Your task to perform on an android device: toggle location history Image 0: 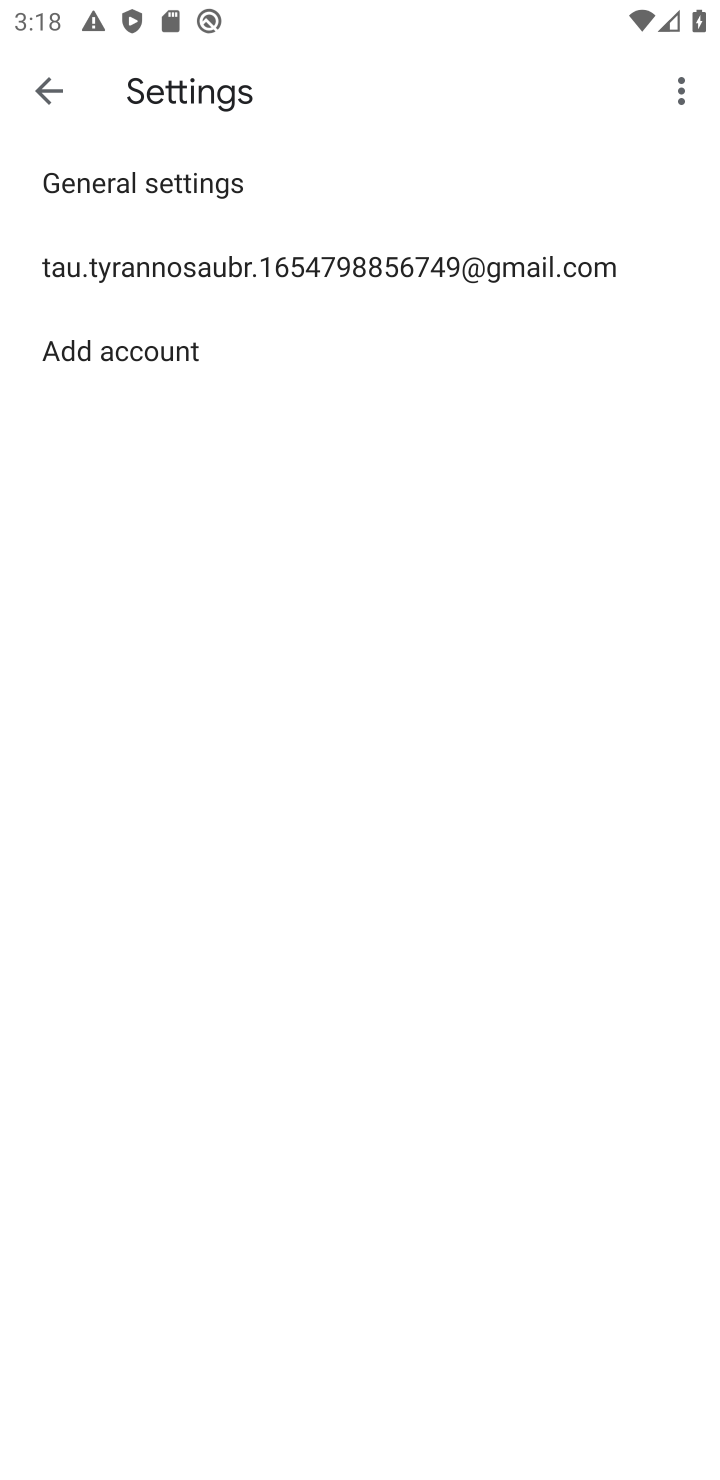
Step 0: press home button
Your task to perform on an android device: toggle location history Image 1: 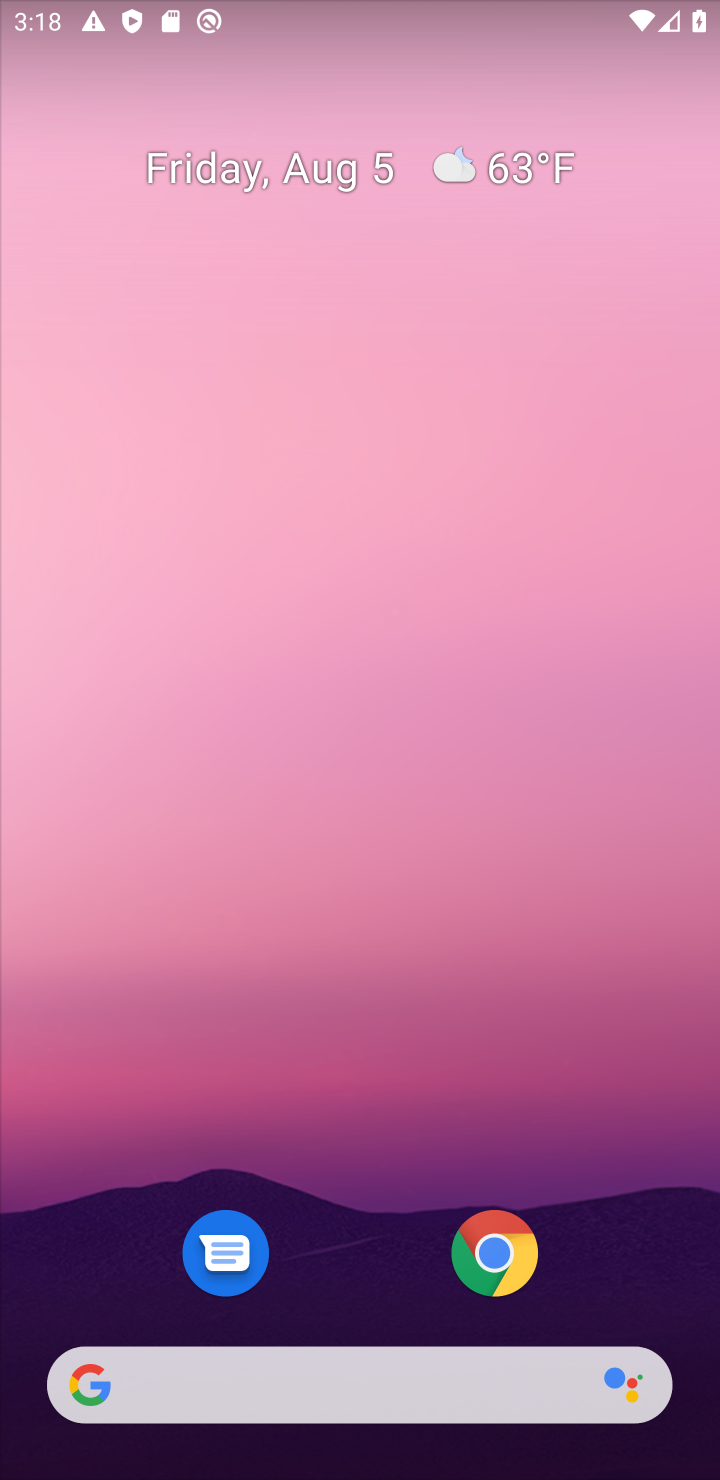
Step 1: drag from (388, 1186) to (548, 258)
Your task to perform on an android device: toggle location history Image 2: 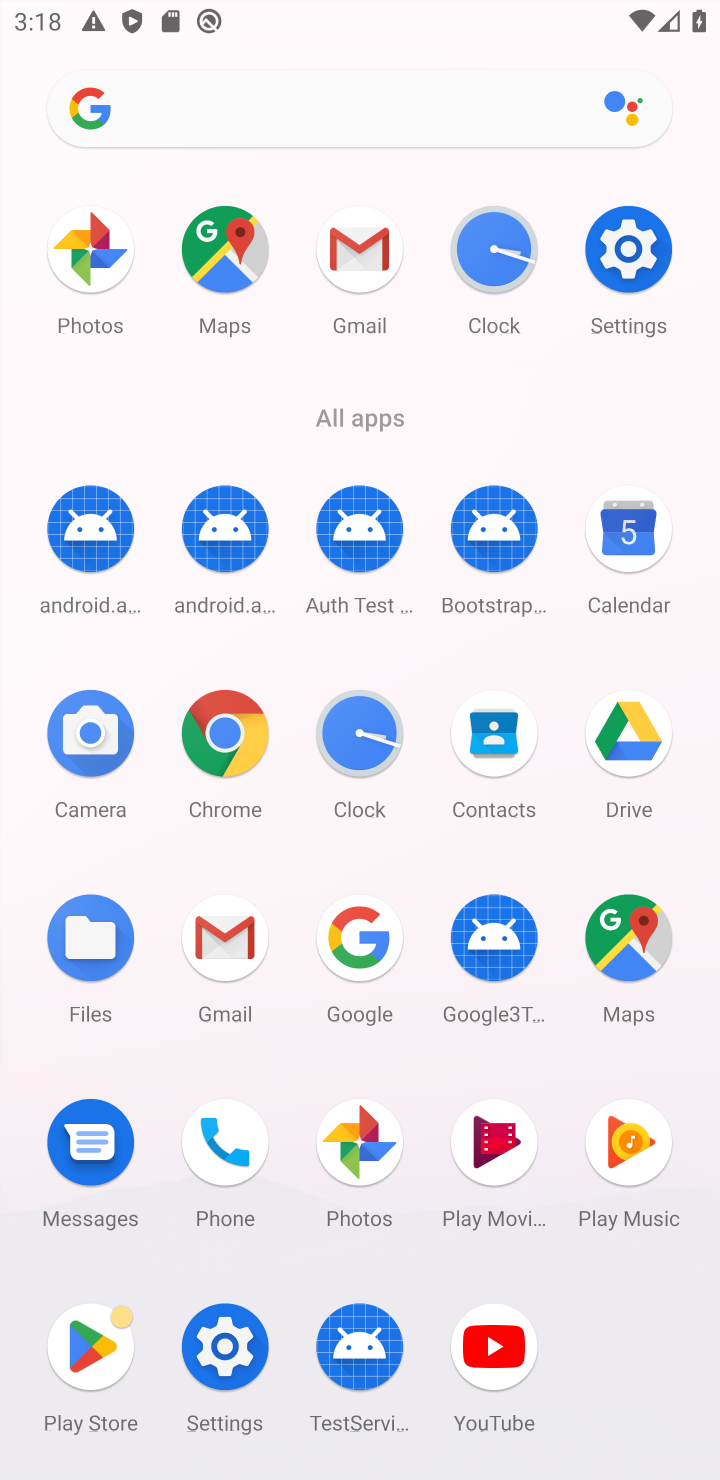
Step 2: click (624, 244)
Your task to perform on an android device: toggle location history Image 3: 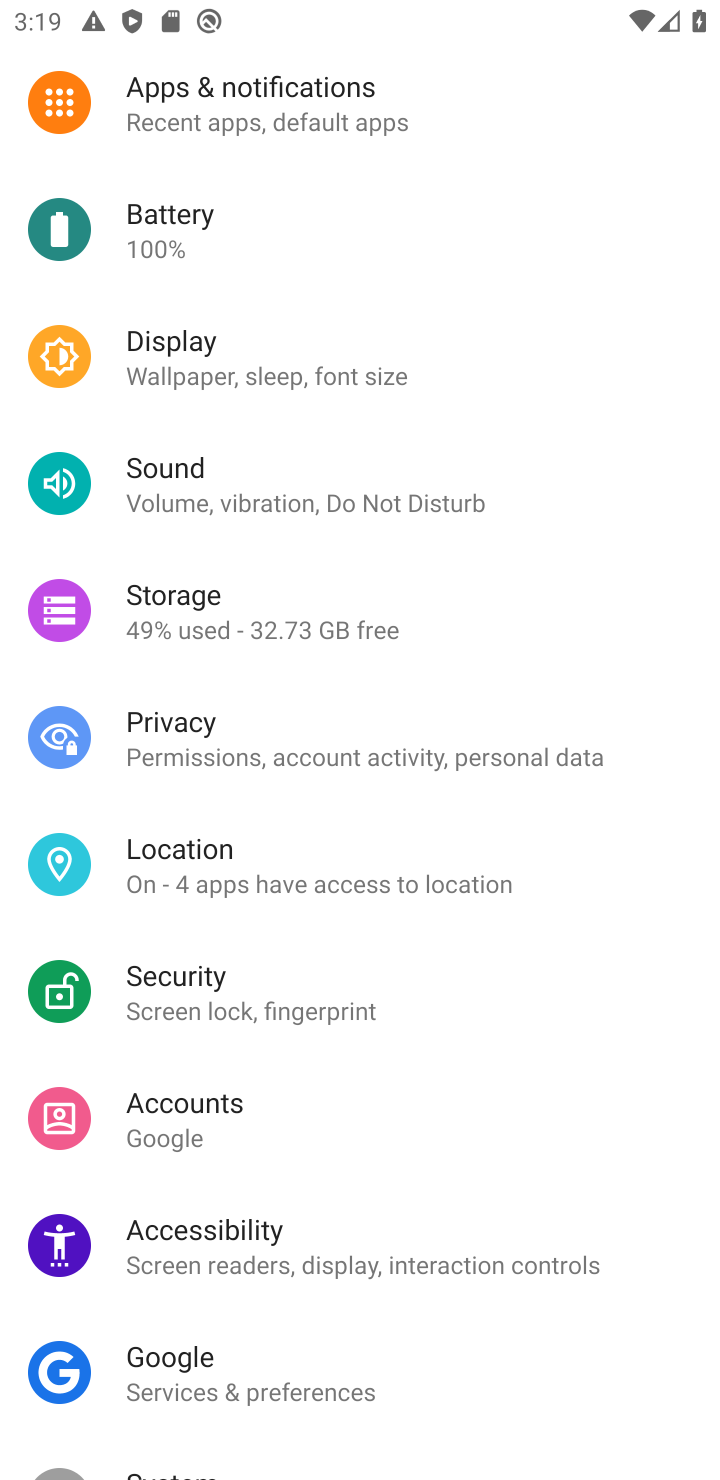
Step 3: click (267, 838)
Your task to perform on an android device: toggle location history Image 4: 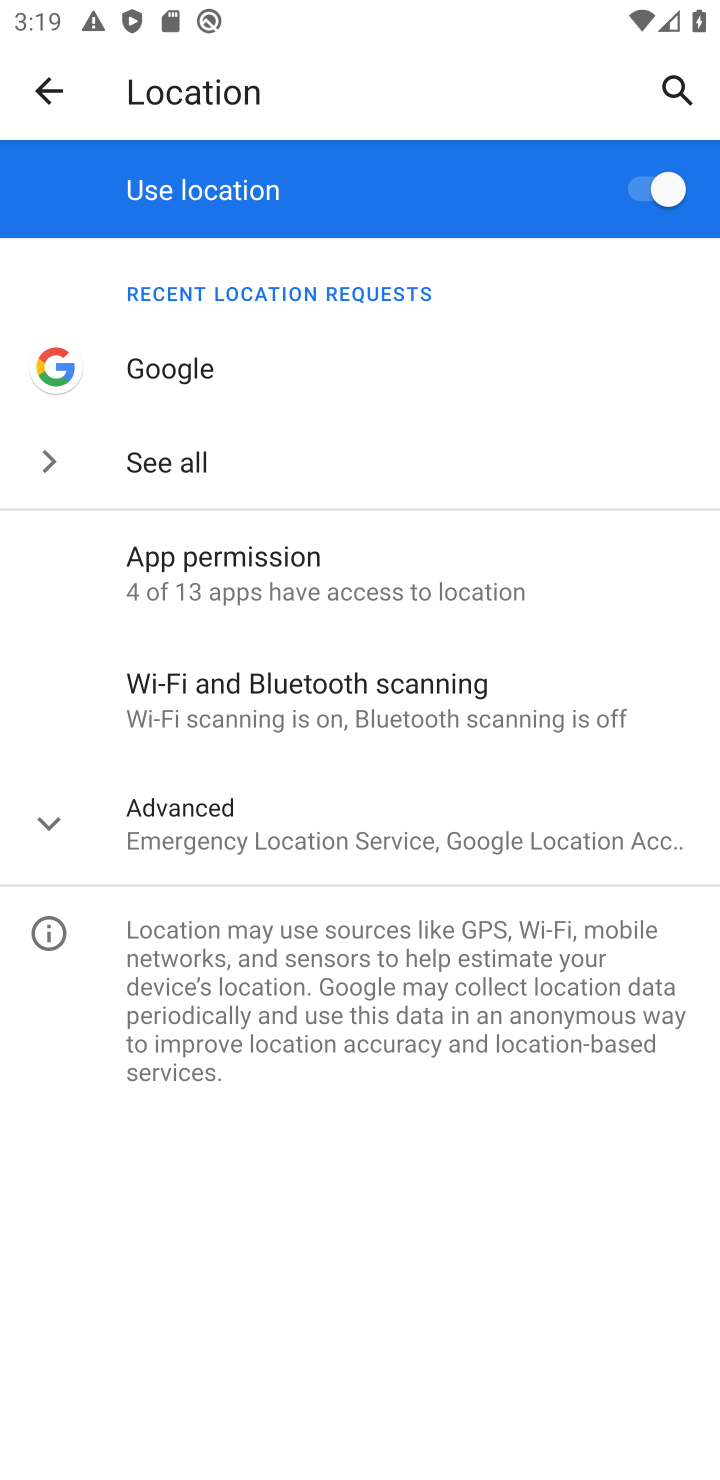
Step 4: click (49, 805)
Your task to perform on an android device: toggle location history Image 5: 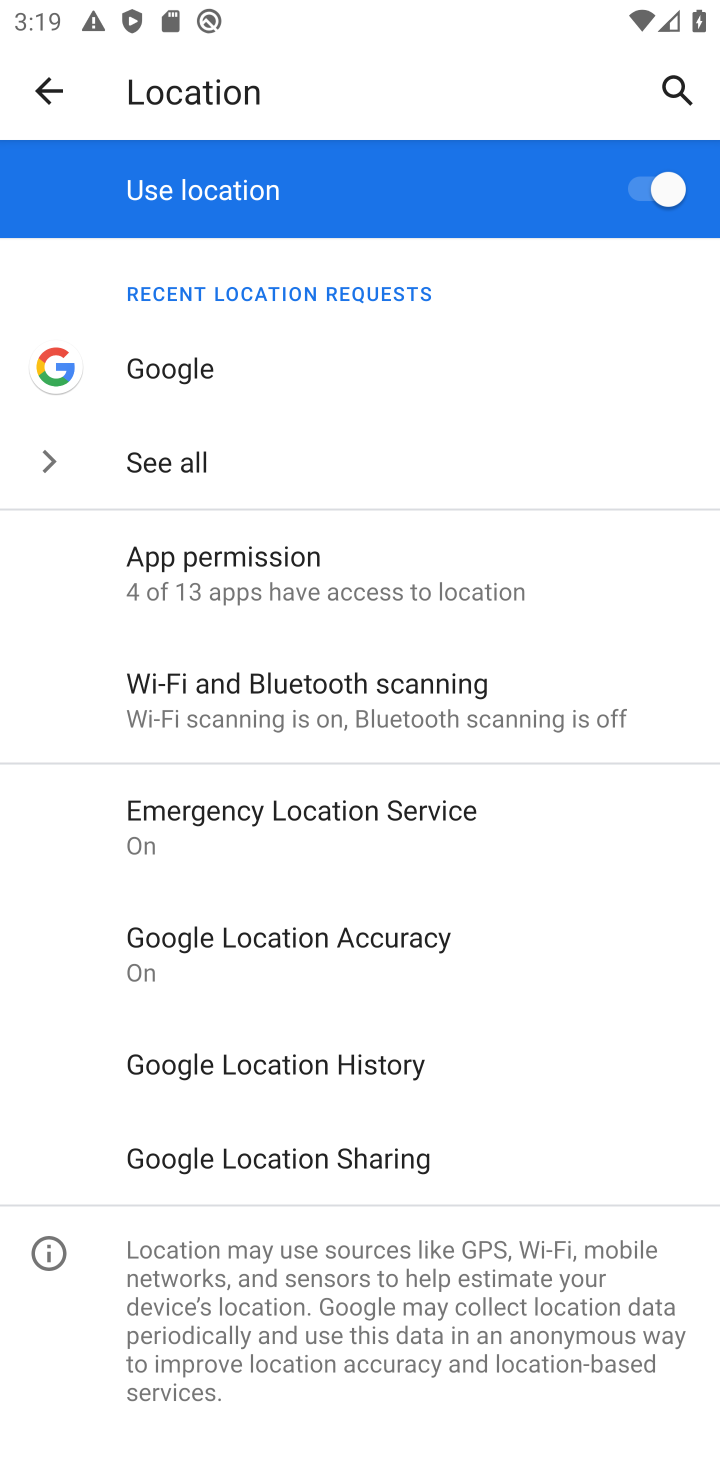
Step 5: click (370, 1044)
Your task to perform on an android device: toggle location history Image 6: 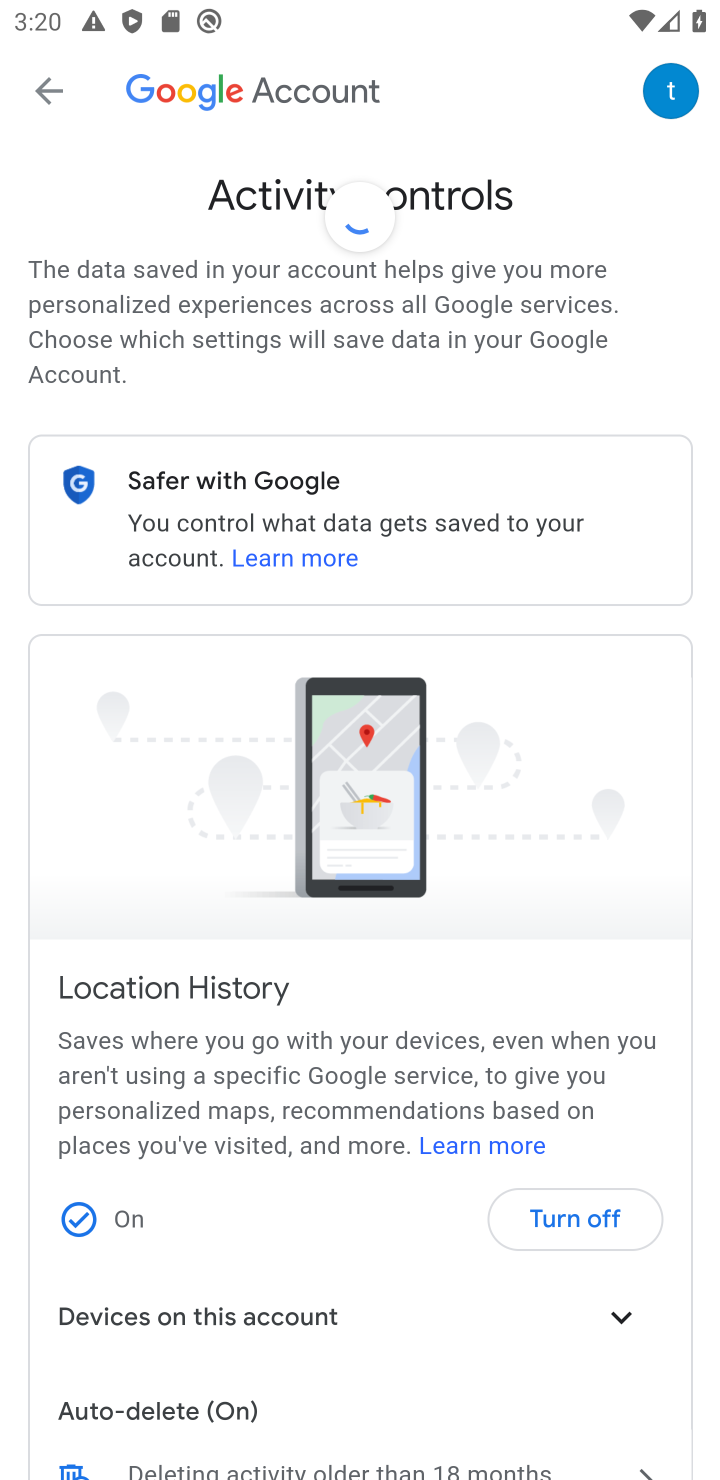
Step 6: drag from (379, 1269) to (366, 727)
Your task to perform on an android device: toggle location history Image 7: 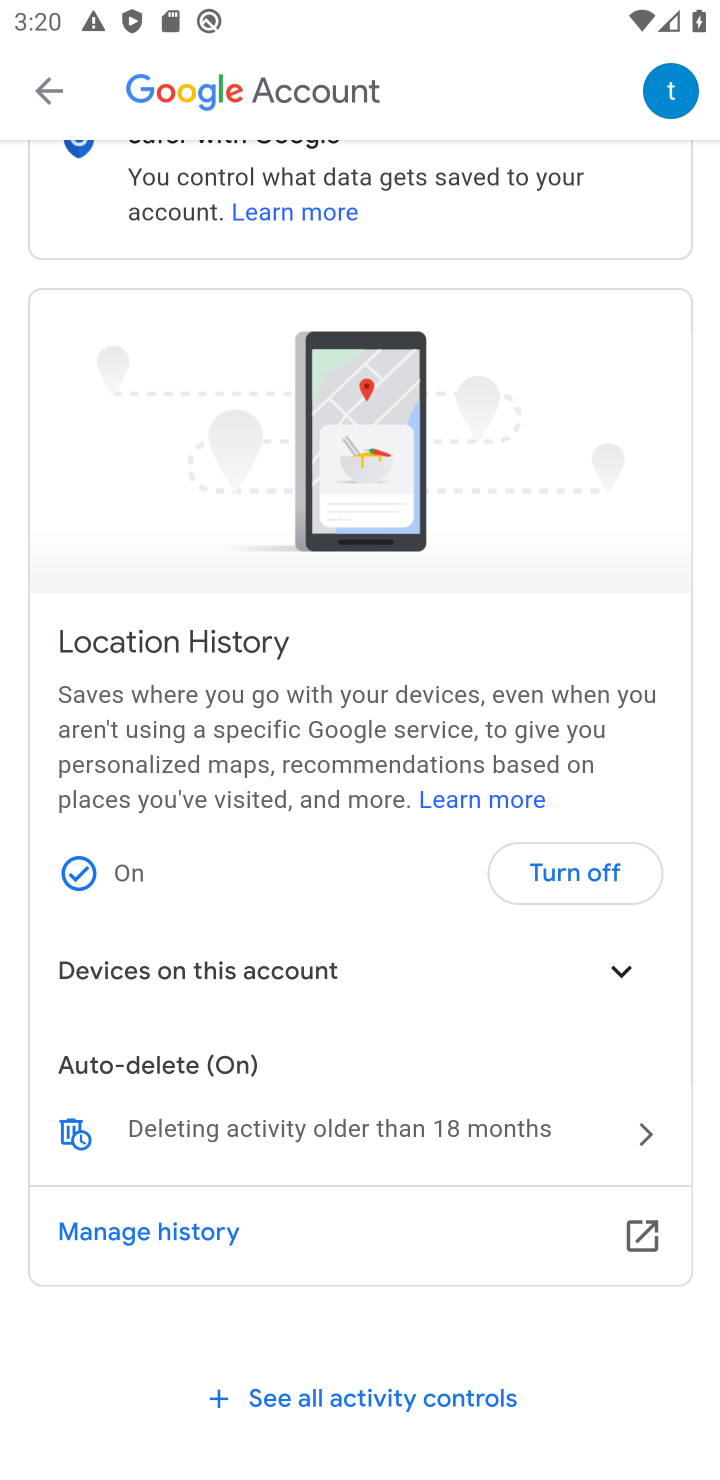
Step 7: click (596, 854)
Your task to perform on an android device: toggle location history Image 8: 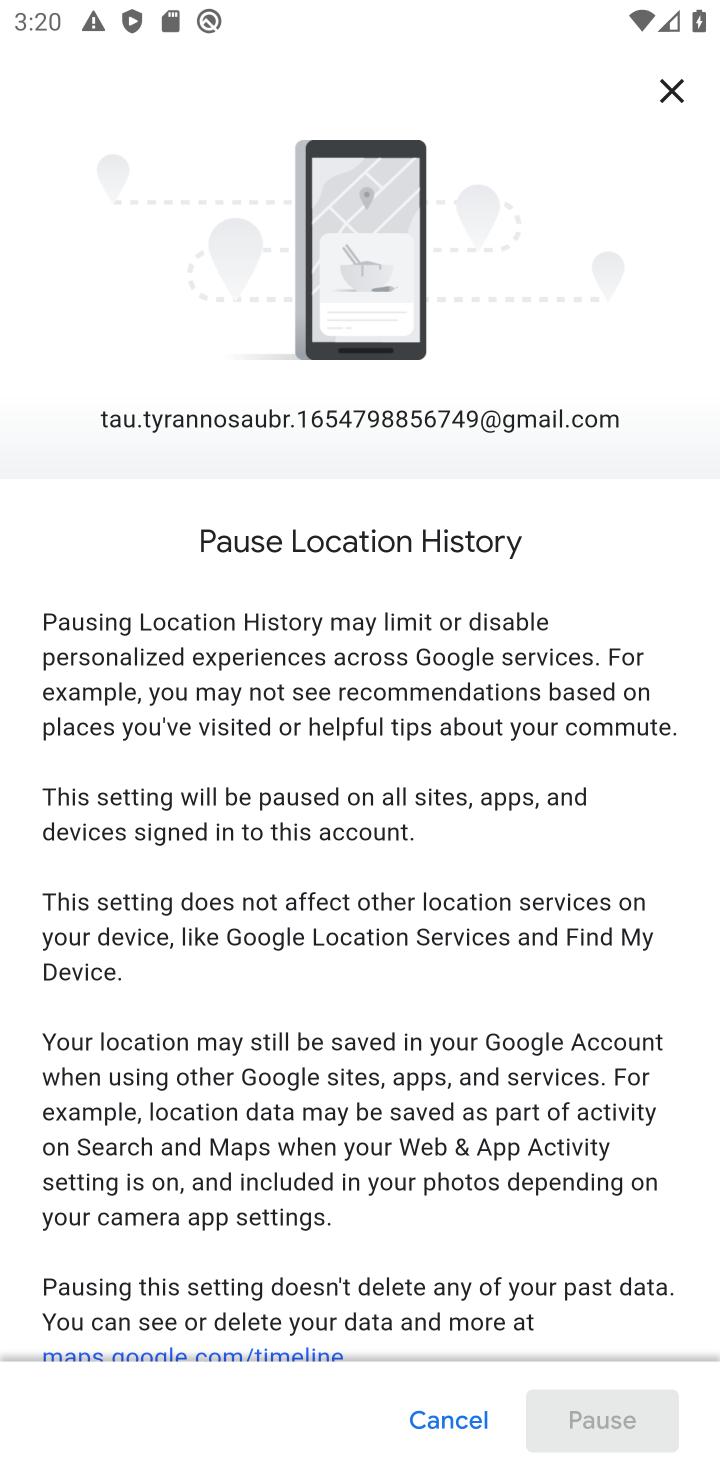
Step 8: drag from (552, 1233) to (554, 433)
Your task to perform on an android device: toggle location history Image 9: 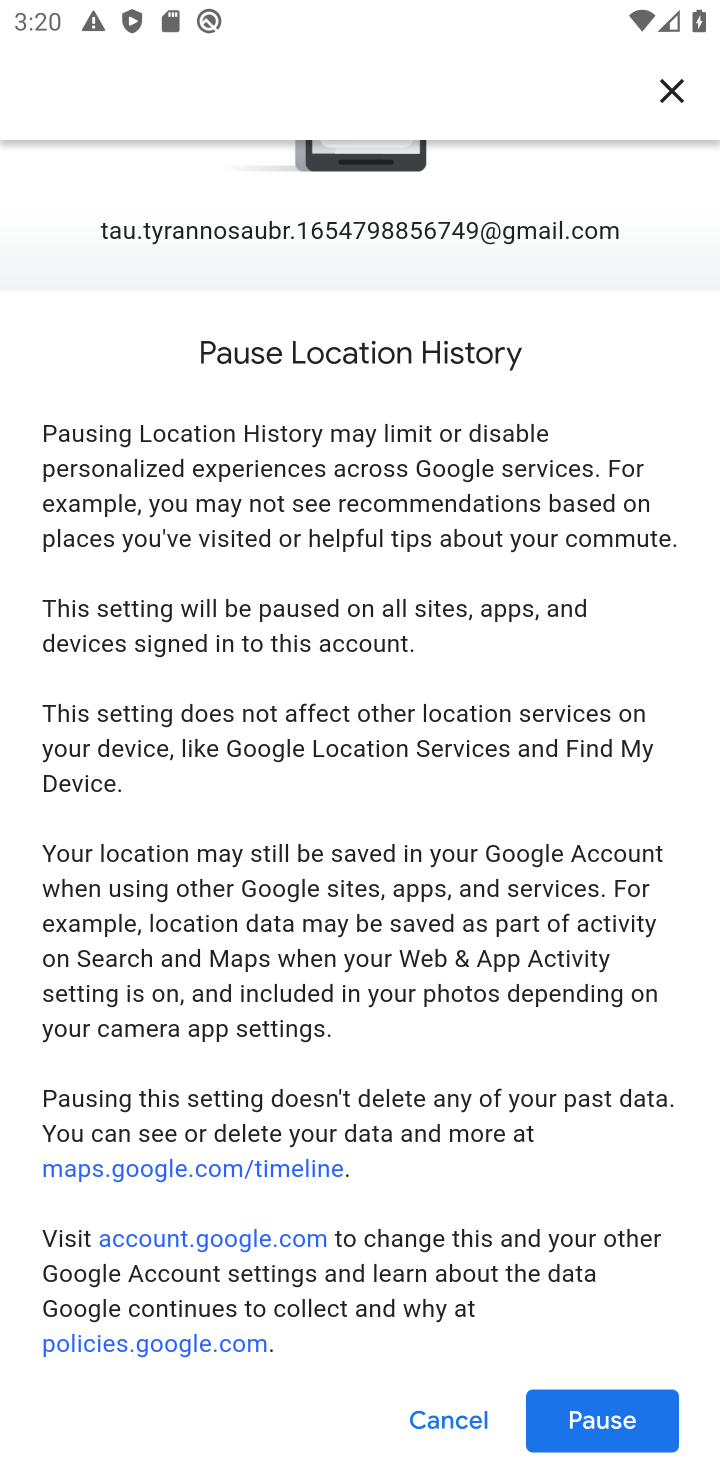
Step 9: click (598, 1421)
Your task to perform on an android device: toggle location history Image 10: 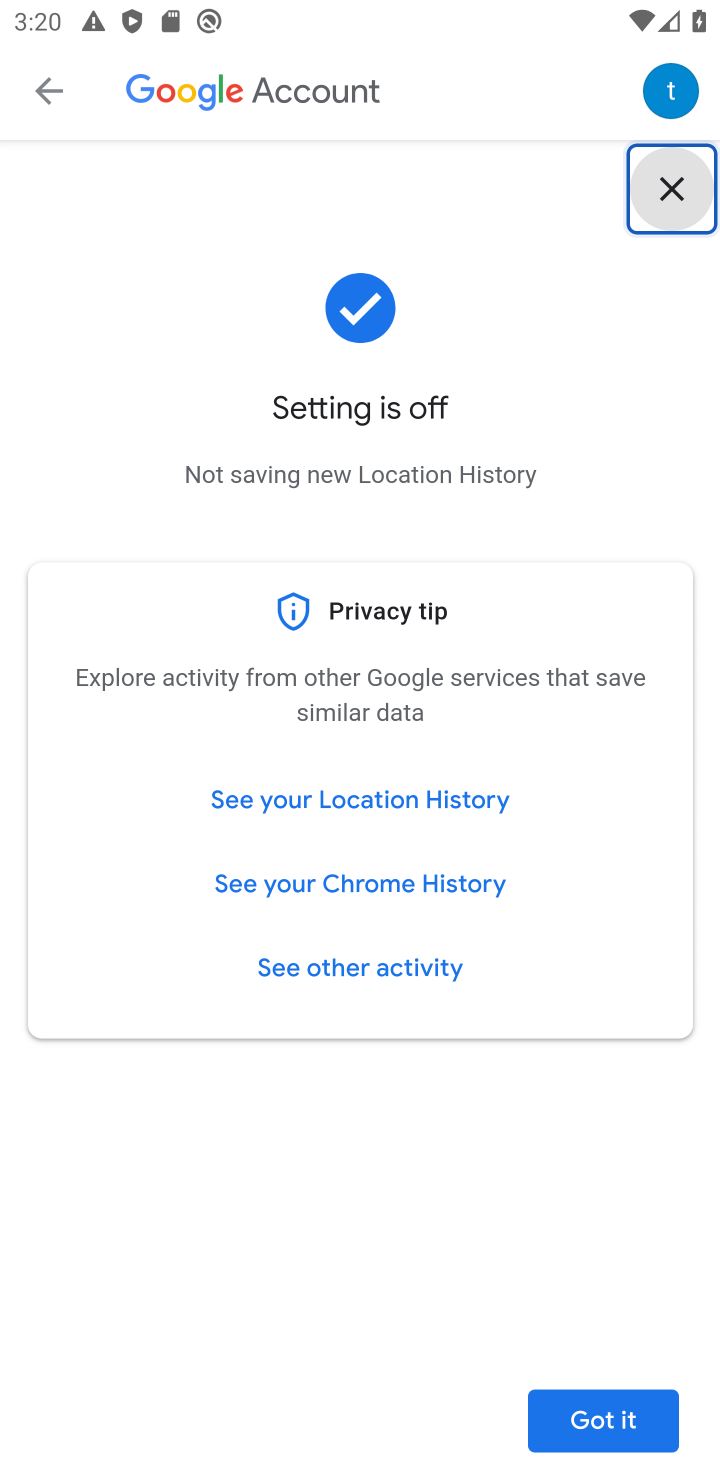
Step 10: click (606, 1441)
Your task to perform on an android device: toggle location history Image 11: 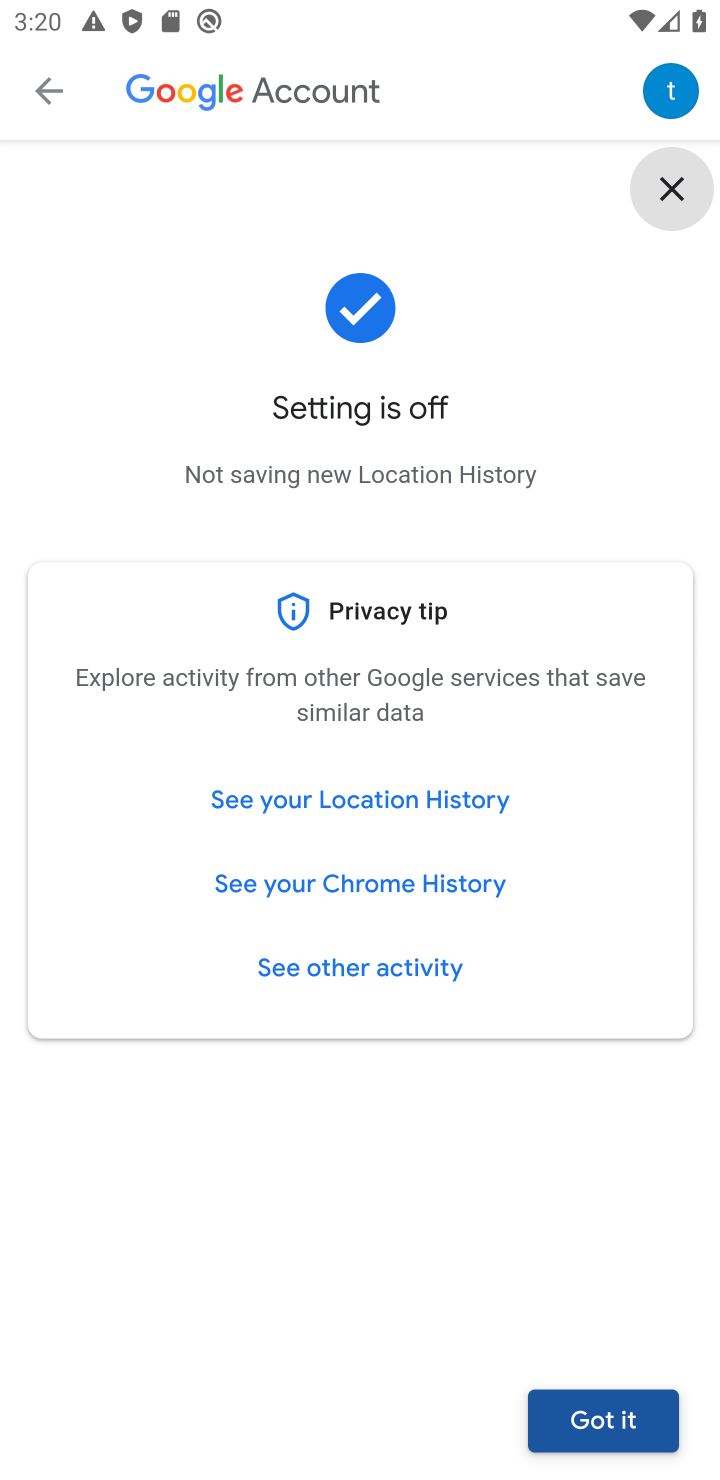
Step 11: task complete